Your task to perform on an android device: Go to CNN.com Image 0: 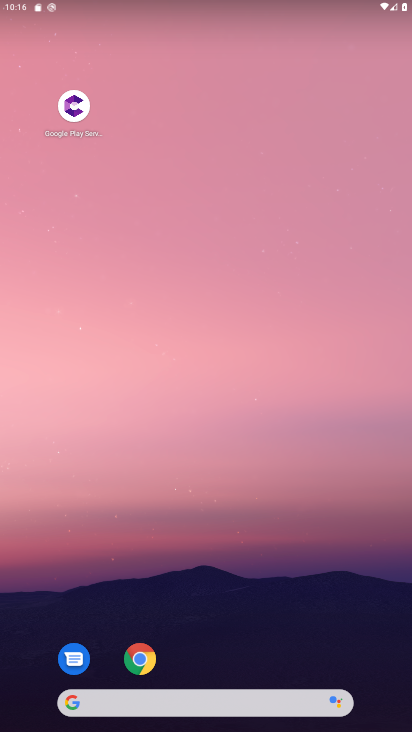
Step 0: click (134, 664)
Your task to perform on an android device: Go to CNN.com Image 1: 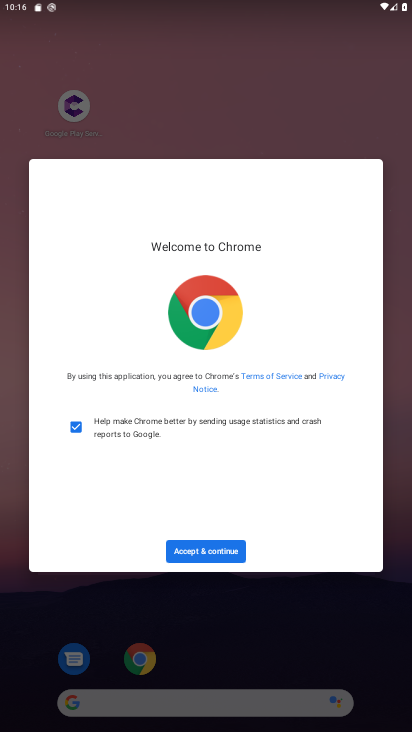
Step 1: click (201, 552)
Your task to perform on an android device: Go to CNN.com Image 2: 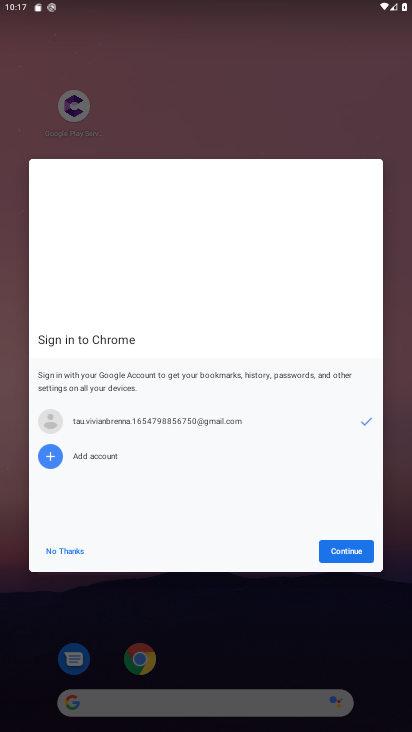
Step 2: click (324, 545)
Your task to perform on an android device: Go to CNN.com Image 3: 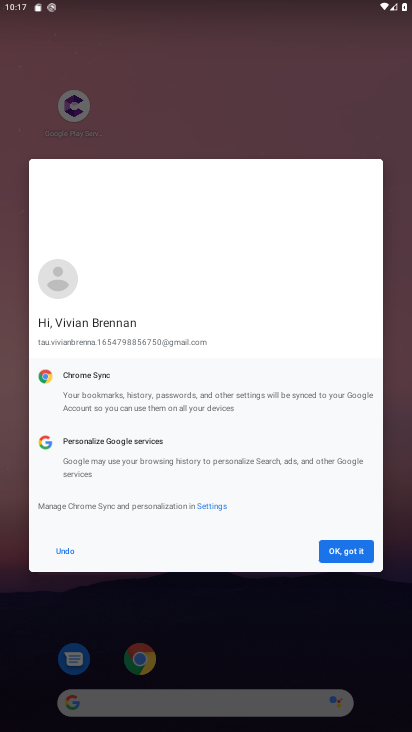
Step 3: click (341, 545)
Your task to perform on an android device: Go to CNN.com Image 4: 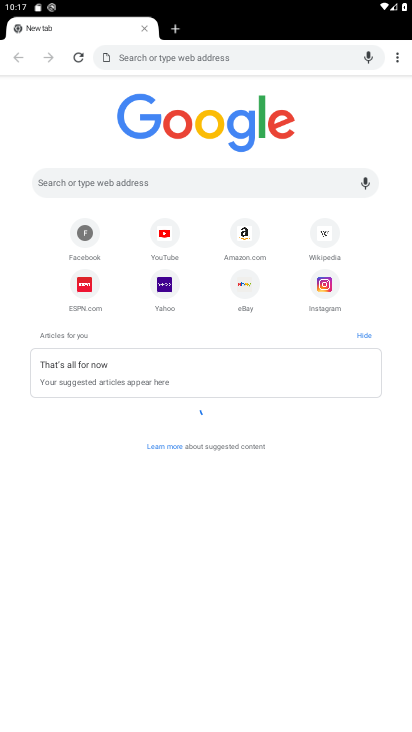
Step 4: click (147, 180)
Your task to perform on an android device: Go to CNN.com Image 5: 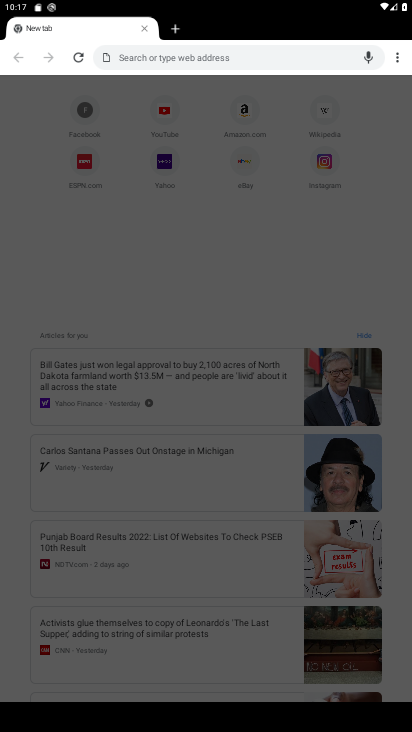
Step 5: type "cnn.com"
Your task to perform on an android device: Go to CNN.com Image 6: 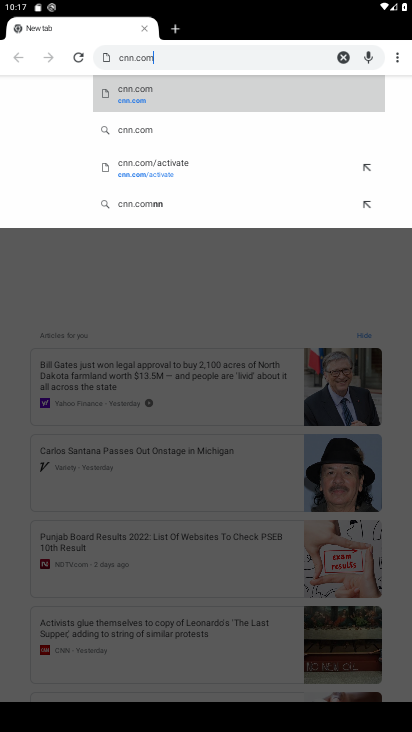
Step 6: click (156, 100)
Your task to perform on an android device: Go to CNN.com Image 7: 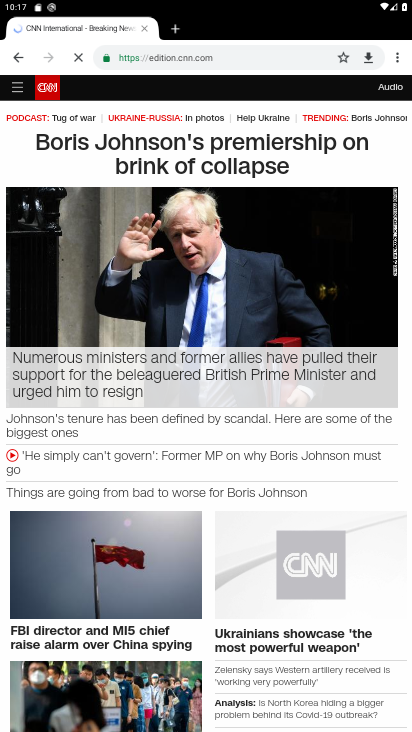
Step 7: task complete